Your task to perform on an android device: Open battery settings Image 0: 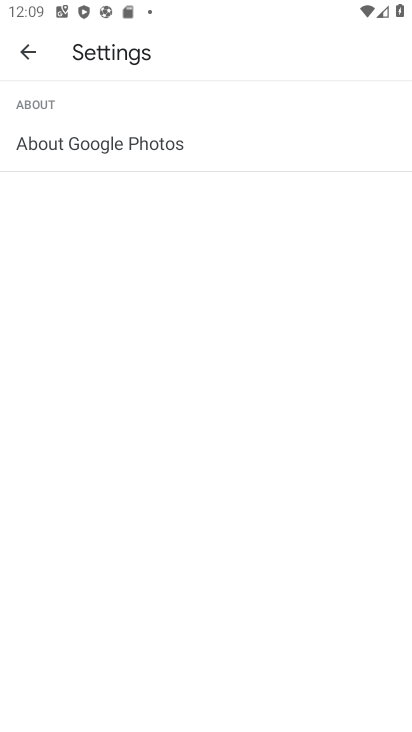
Step 0: press home button
Your task to perform on an android device: Open battery settings Image 1: 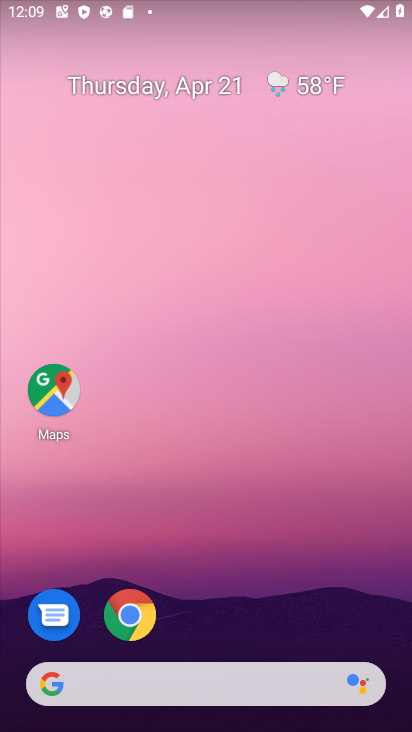
Step 1: drag from (354, 634) to (305, 87)
Your task to perform on an android device: Open battery settings Image 2: 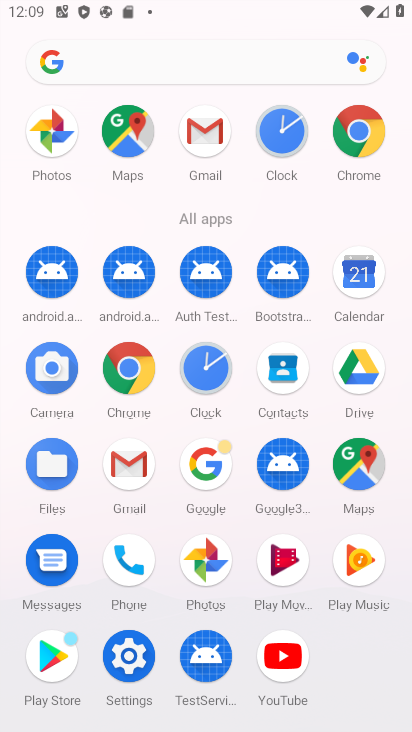
Step 2: click (114, 667)
Your task to perform on an android device: Open battery settings Image 3: 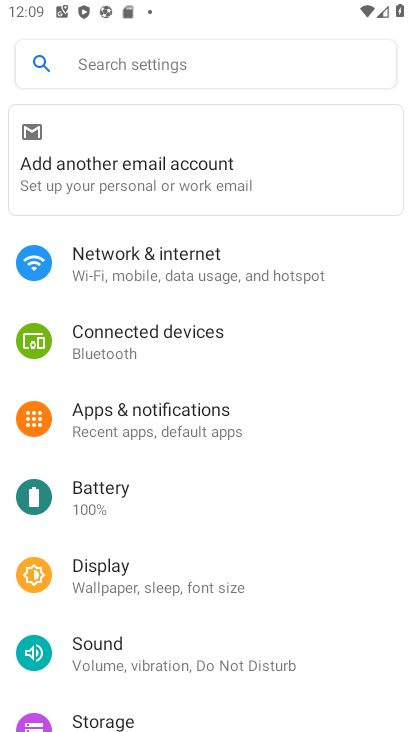
Step 3: drag from (333, 645) to (351, 332)
Your task to perform on an android device: Open battery settings Image 4: 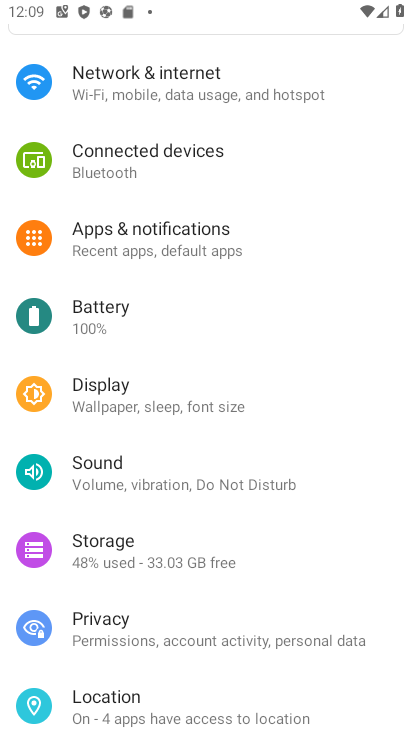
Step 4: click (82, 314)
Your task to perform on an android device: Open battery settings Image 5: 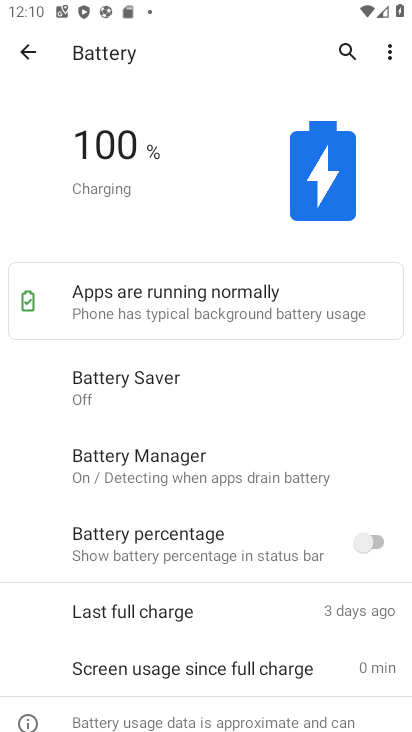
Step 5: click (389, 51)
Your task to perform on an android device: Open battery settings Image 6: 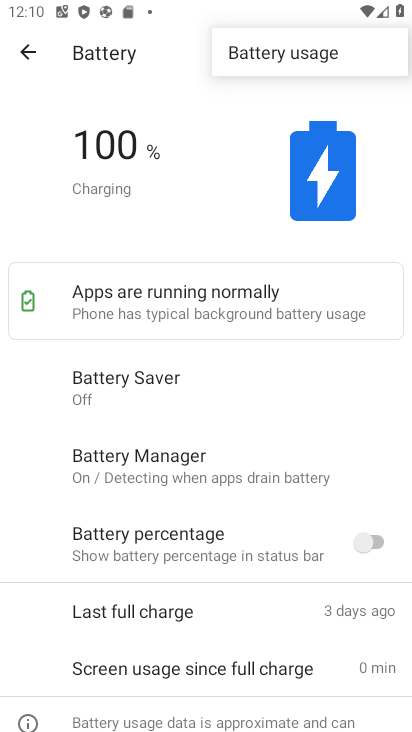
Step 6: click (311, 51)
Your task to perform on an android device: Open battery settings Image 7: 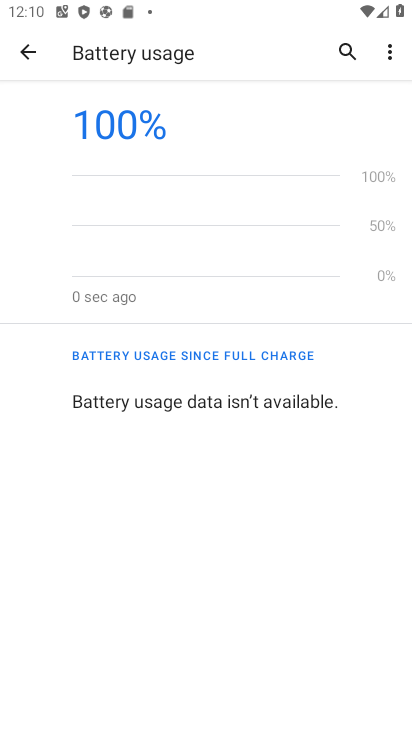
Step 7: task complete